Your task to perform on an android device: uninstall "Airtel Thanks" Image 0: 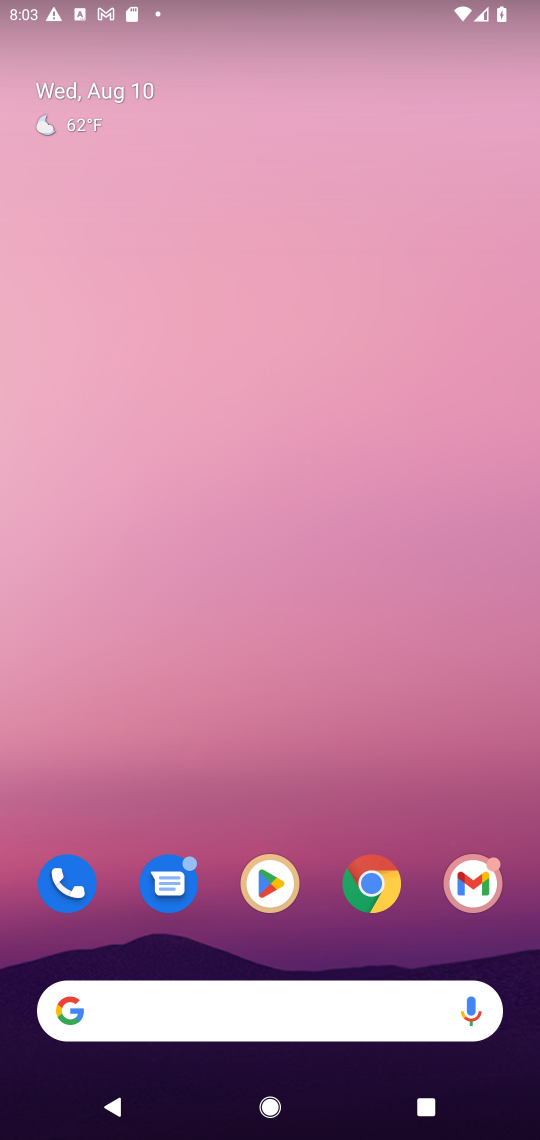
Step 0: click (272, 857)
Your task to perform on an android device: uninstall "Airtel Thanks" Image 1: 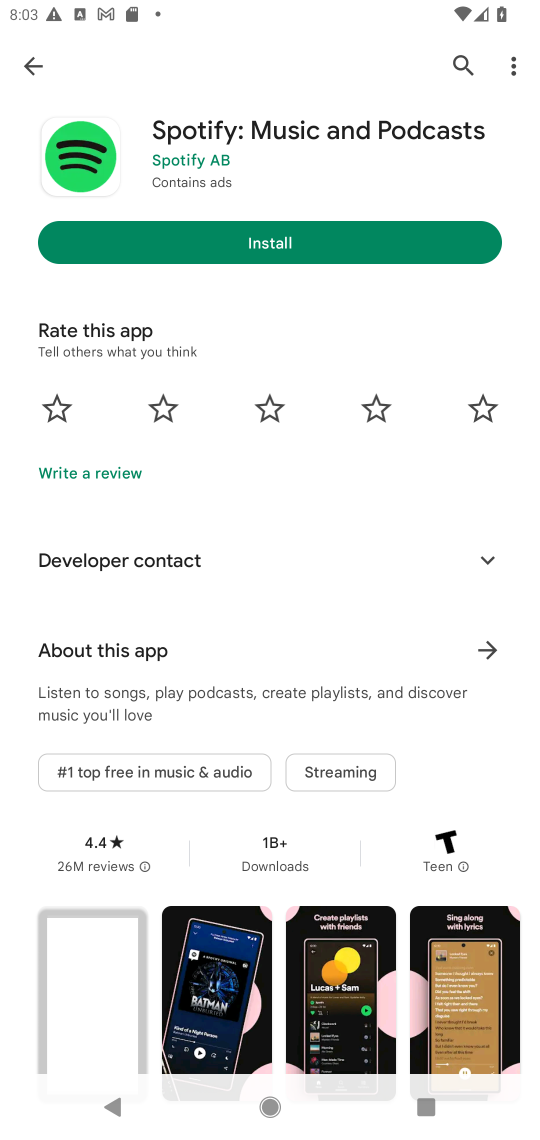
Step 1: click (458, 57)
Your task to perform on an android device: uninstall "Airtel Thanks" Image 2: 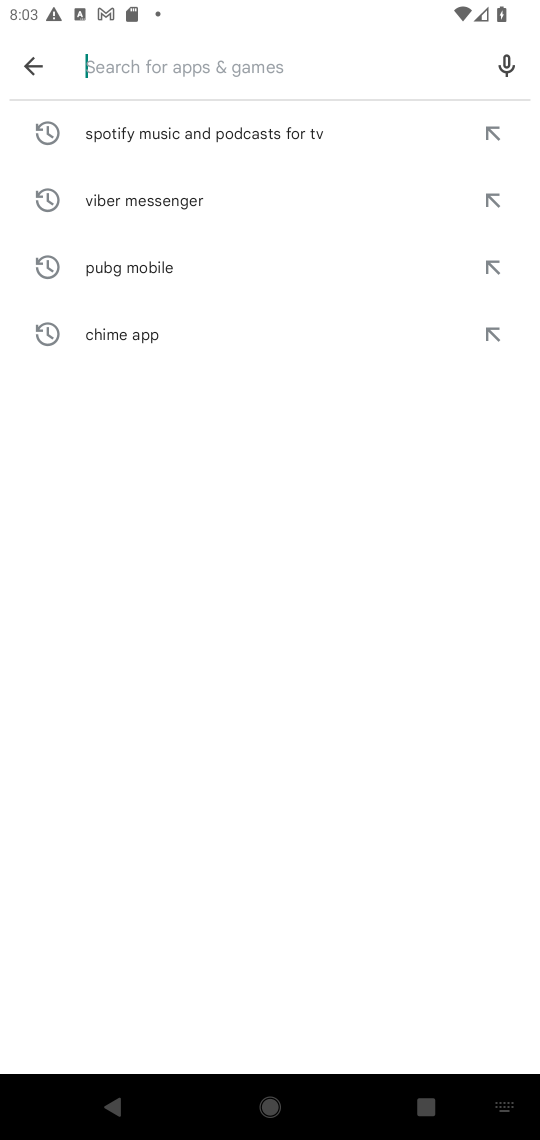
Step 2: type "Airtel Thanks"
Your task to perform on an android device: uninstall "Airtel Thanks" Image 3: 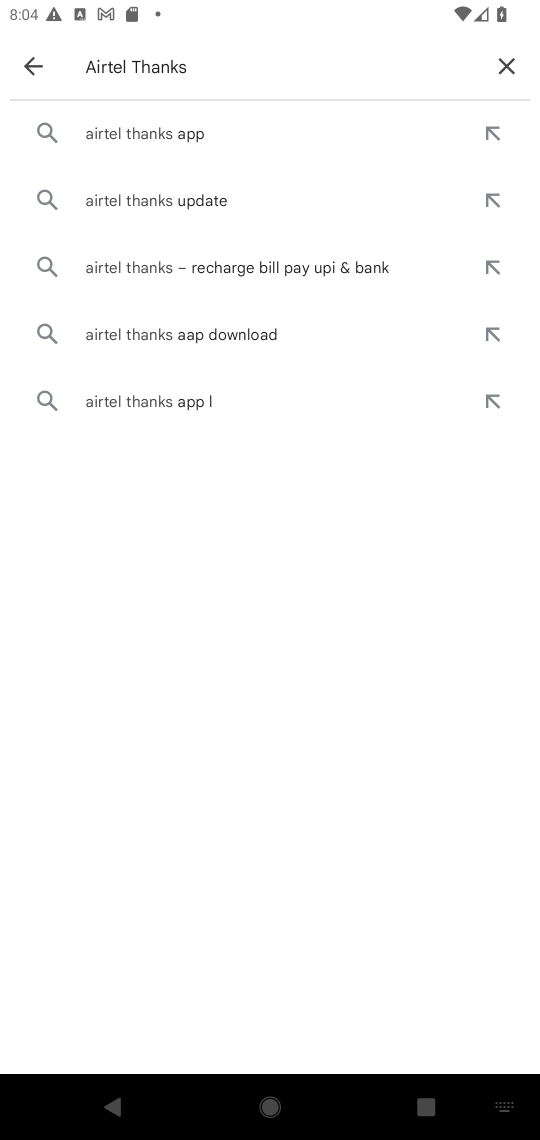
Step 3: click (225, 136)
Your task to perform on an android device: uninstall "Airtel Thanks" Image 4: 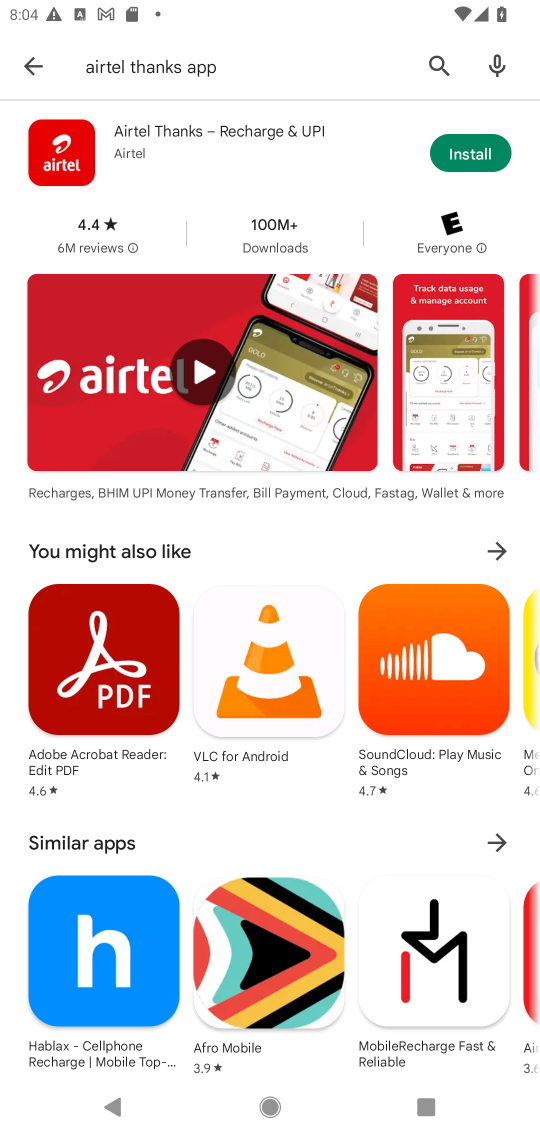
Step 4: click (300, 157)
Your task to perform on an android device: uninstall "Airtel Thanks" Image 5: 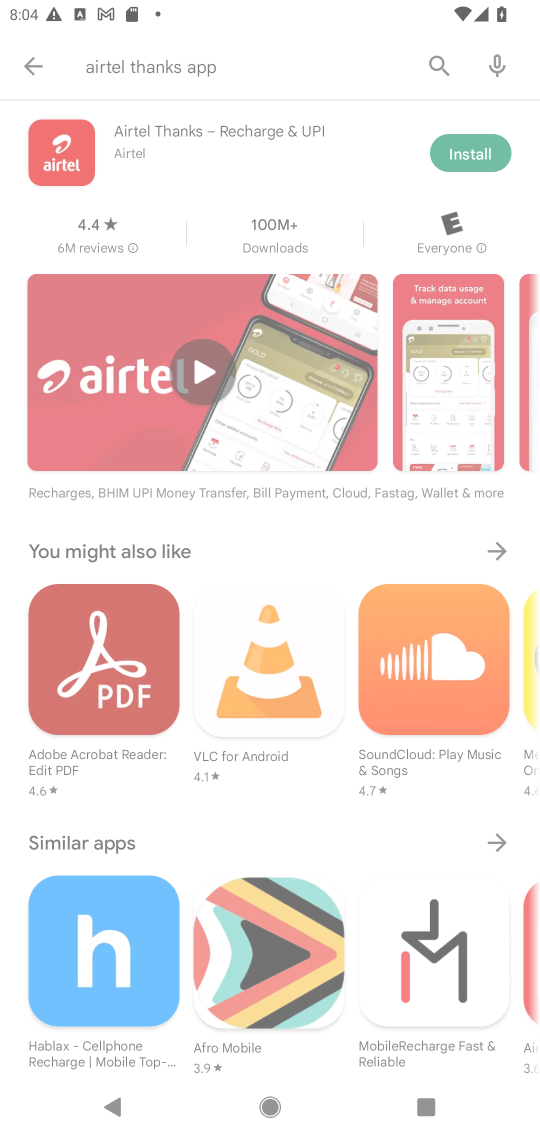
Step 5: task complete